Your task to perform on an android device: set the timer Image 0: 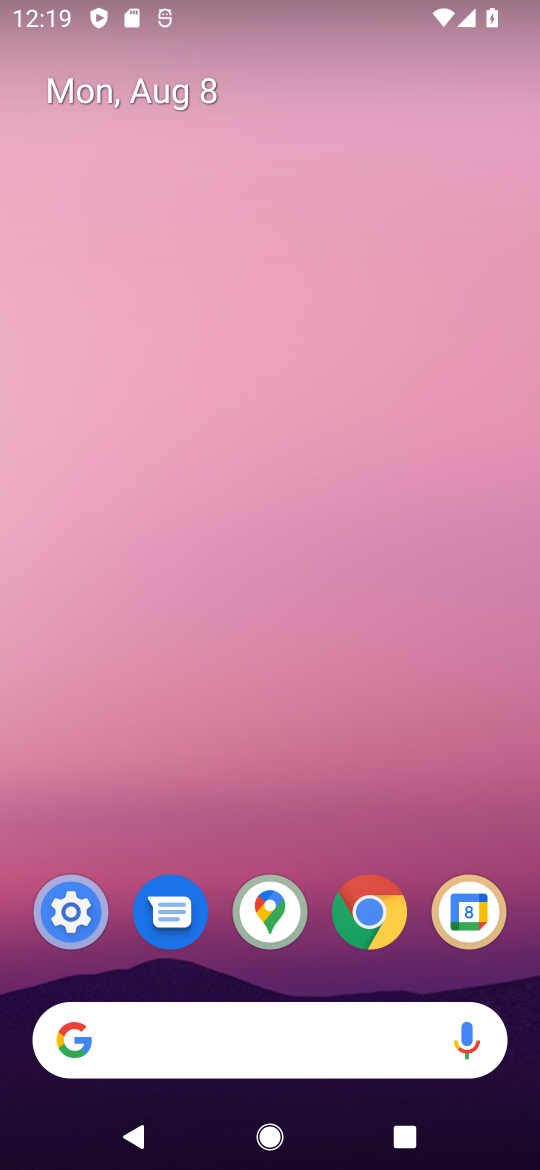
Step 0: drag from (217, 983) to (337, 56)
Your task to perform on an android device: set the timer Image 1: 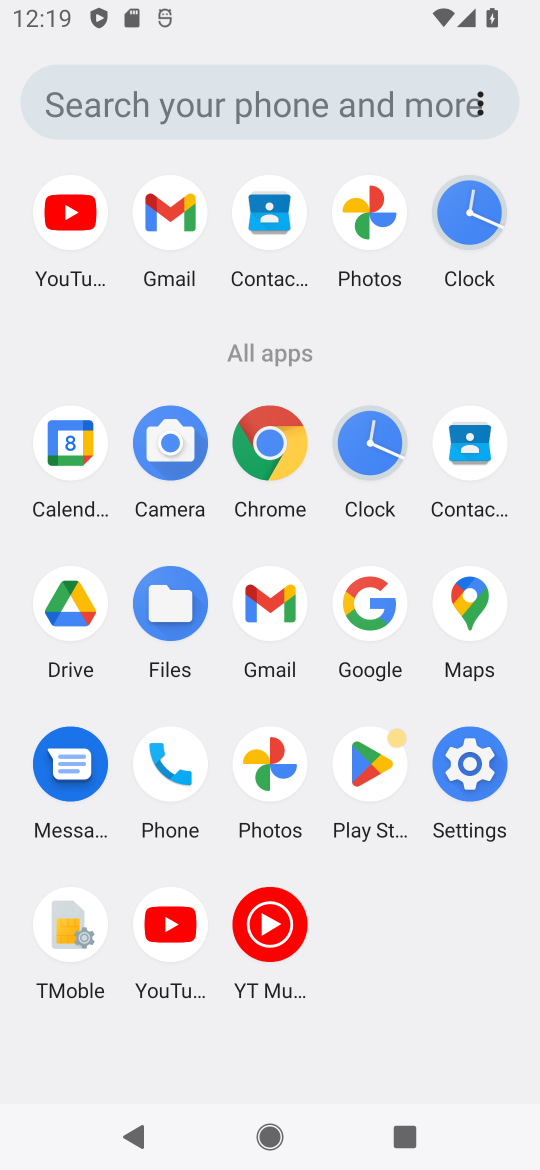
Step 1: click (467, 216)
Your task to perform on an android device: set the timer Image 2: 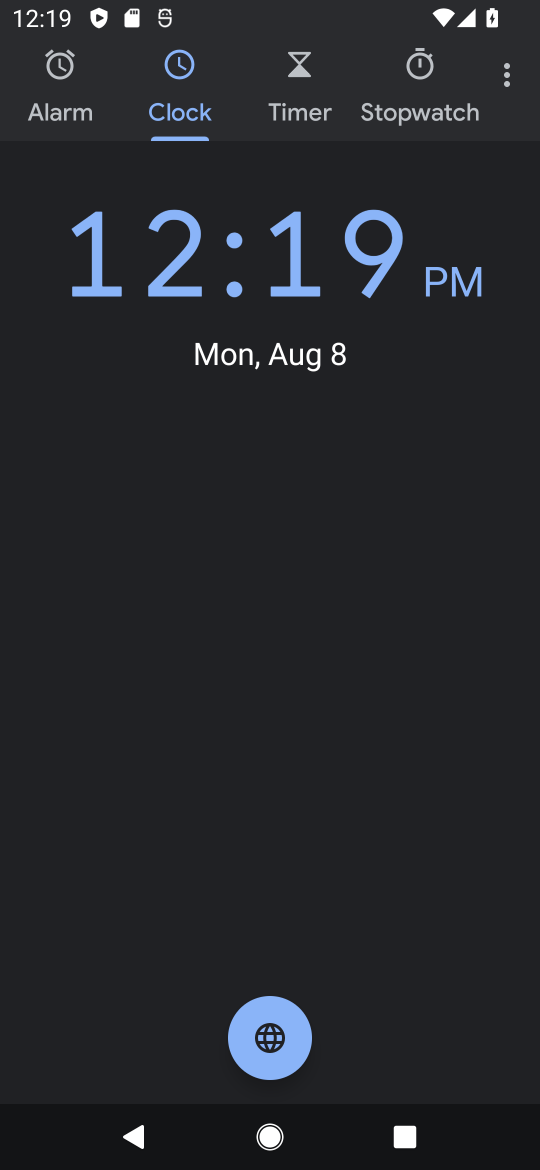
Step 2: click (288, 93)
Your task to perform on an android device: set the timer Image 3: 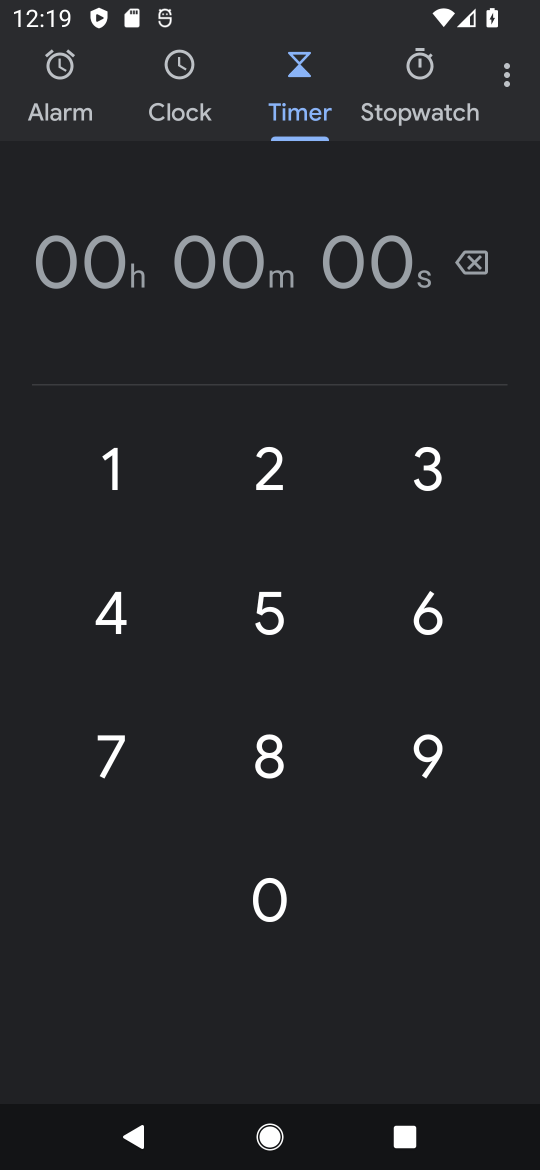
Step 3: click (279, 460)
Your task to perform on an android device: set the timer Image 4: 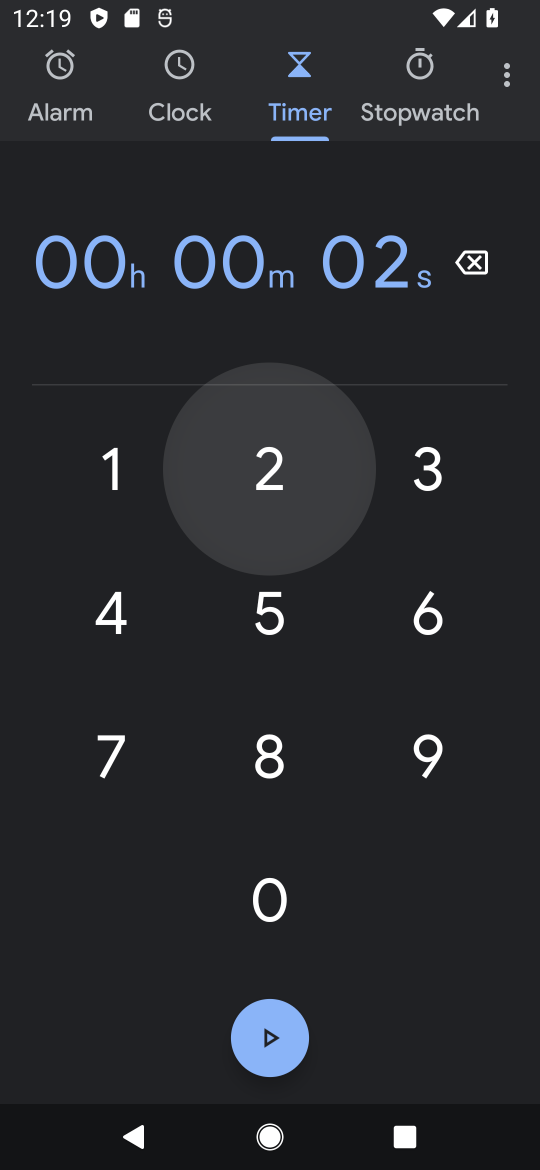
Step 4: click (434, 438)
Your task to perform on an android device: set the timer Image 5: 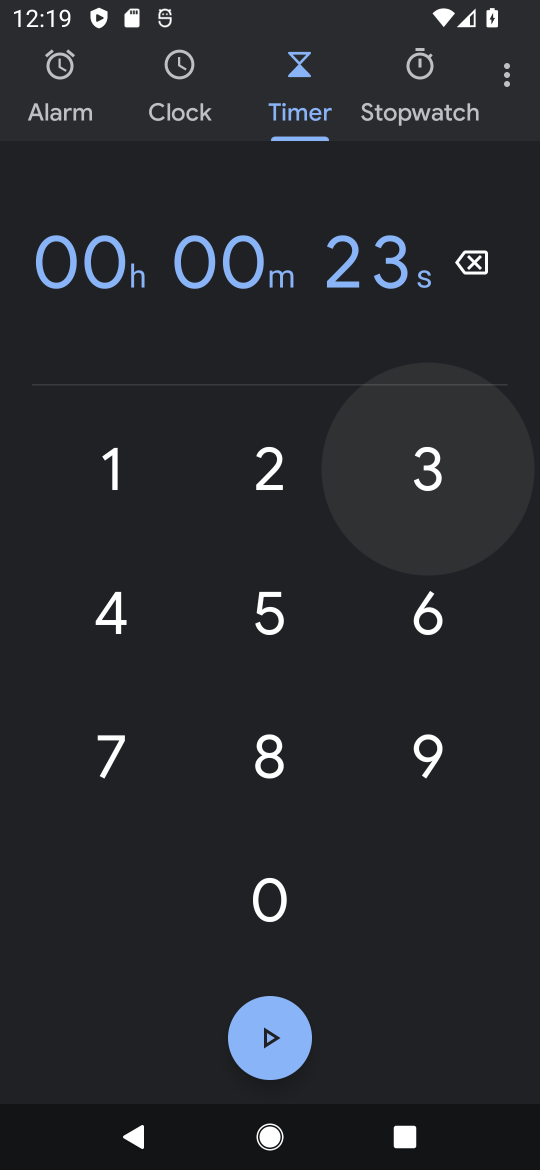
Step 5: click (263, 618)
Your task to perform on an android device: set the timer Image 6: 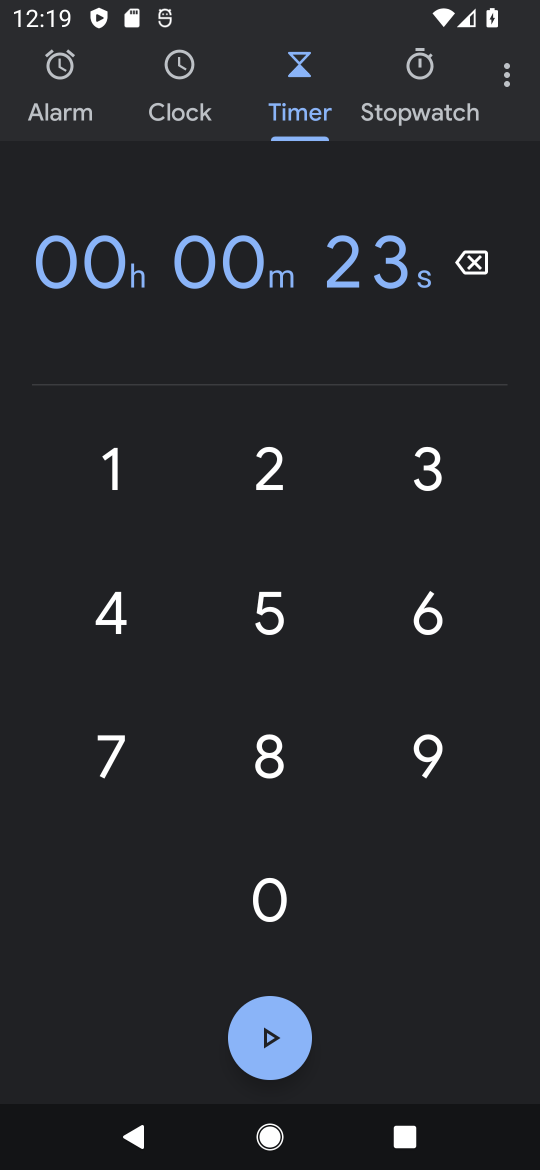
Step 6: click (389, 604)
Your task to perform on an android device: set the timer Image 7: 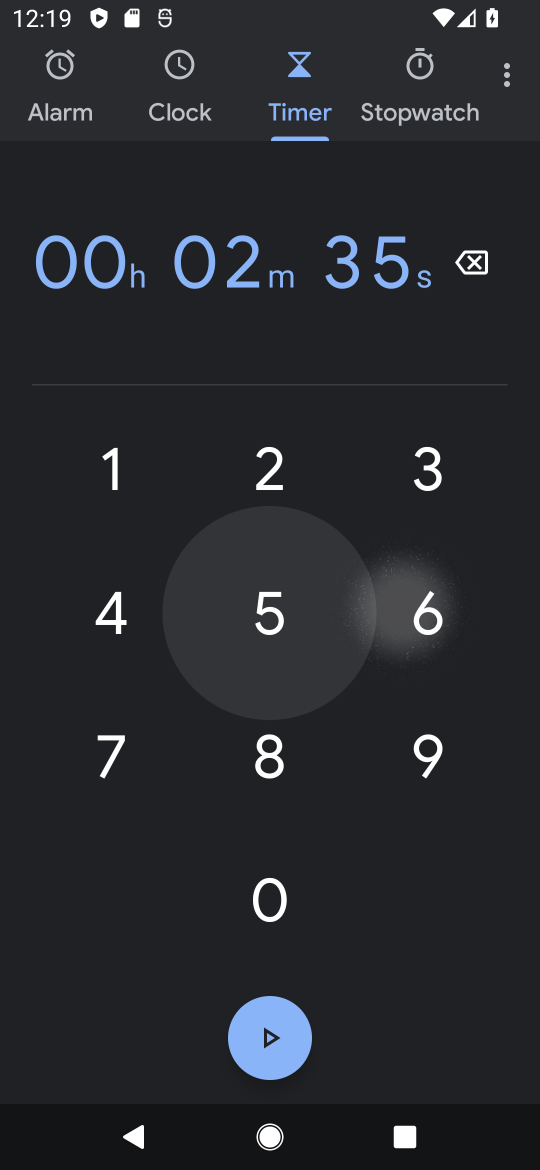
Step 7: click (54, 611)
Your task to perform on an android device: set the timer Image 8: 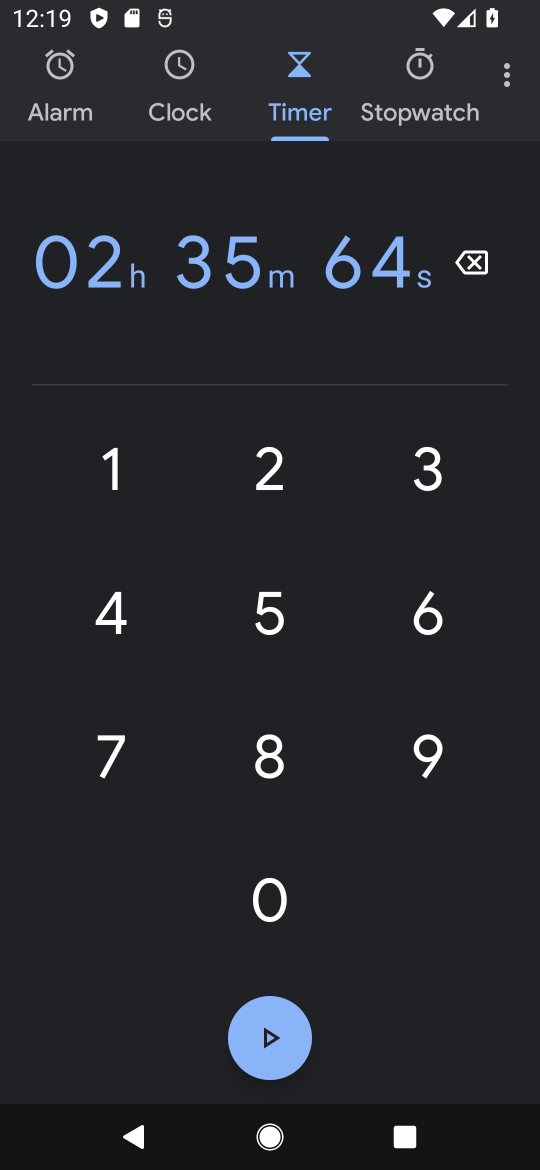
Step 8: task complete